Your task to perform on an android device: Is it going to rain today? Image 0: 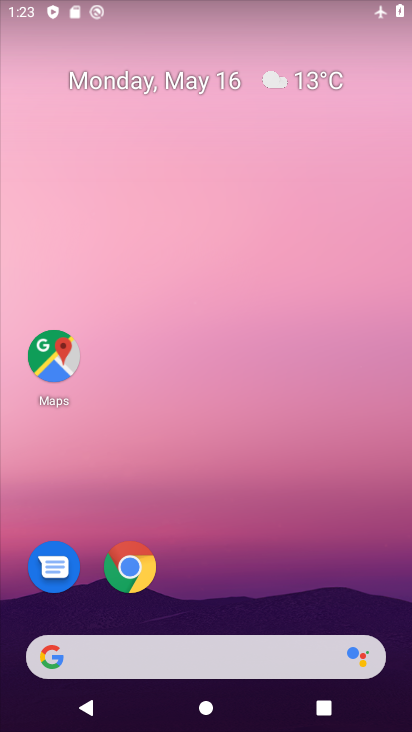
Step 0: drag from (274, 563) to (202, 2)
Your task to perform on an android device: Is it going to rain today? Image 1: 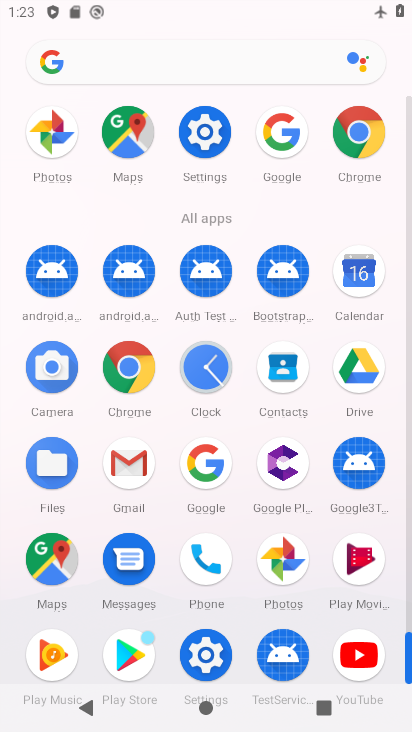
Step 1: press home button
Your task to perform on an android device: Is it going to rain today? Image 2: 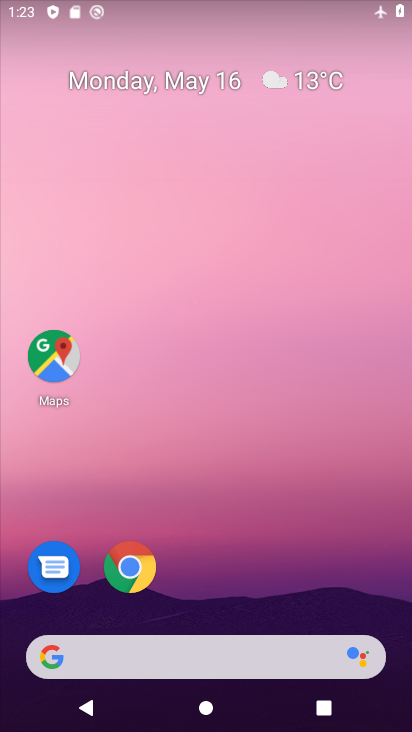
Step 2: click (203, 649)
Your task to perform on an android device: Is it going to rain today? Image 3: 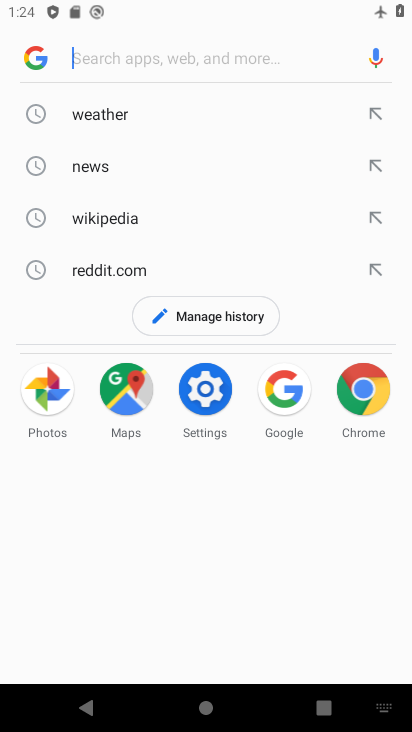
Step 3: click (122, 107)
Your task to perform on an android device: Is it going to rain today? Image 4: 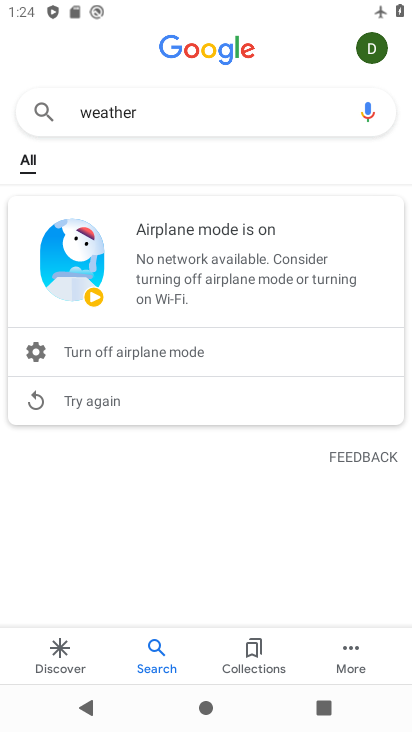
Step 4: click (206, 118)
Your task to perform on an android device: Is it going to rain today? Image 5: 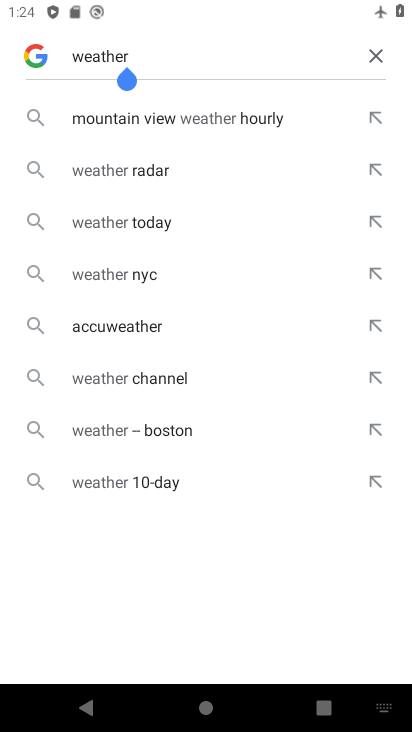
Step 5: click (370, 47)
Your task to perform on an android device: Is it going to rain today? Image 6: 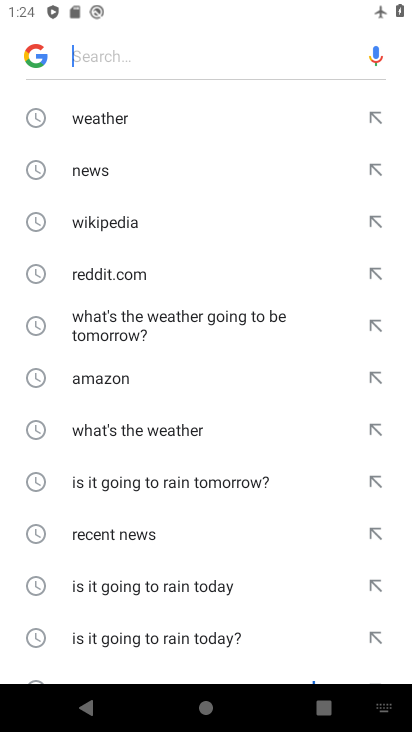
Step 6: click (107, 112)
Your task to perform on an android device: Is it going to rain today? Image 7: 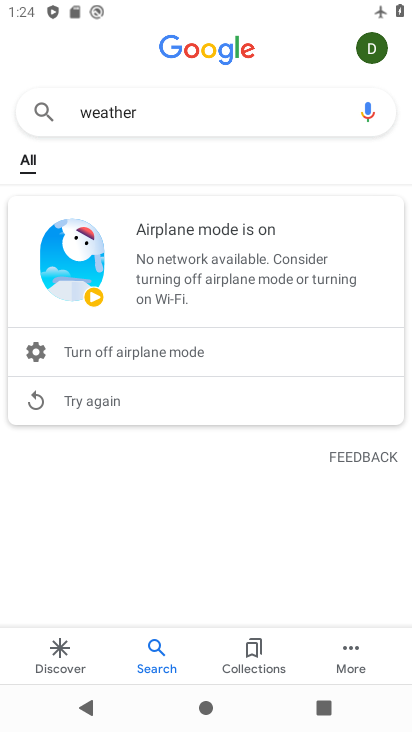
Step 7: task complete